Your task to perform on an android device: delete browsing data in the chrome app Image 0: 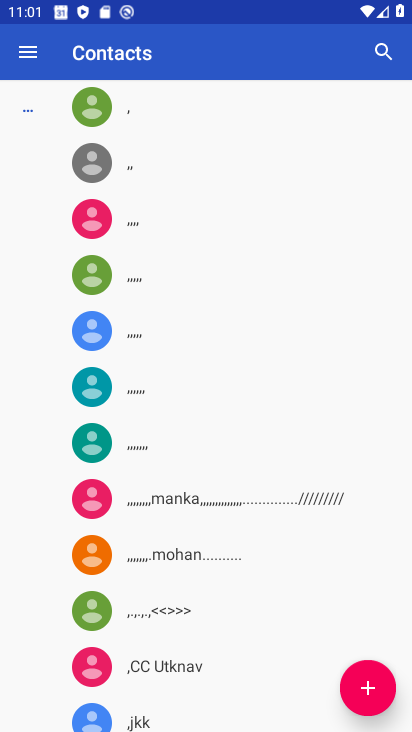
Step 0: press home button
Your task to perform on an android device: delete browsing data in the chrome app Image 1: 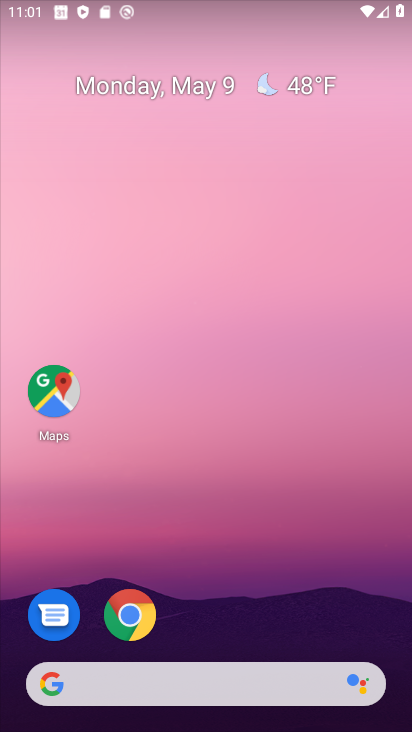
Step 1: click (127, 614)
Your task to perform on an android device: delete browsing data in the chrome app Image 2: 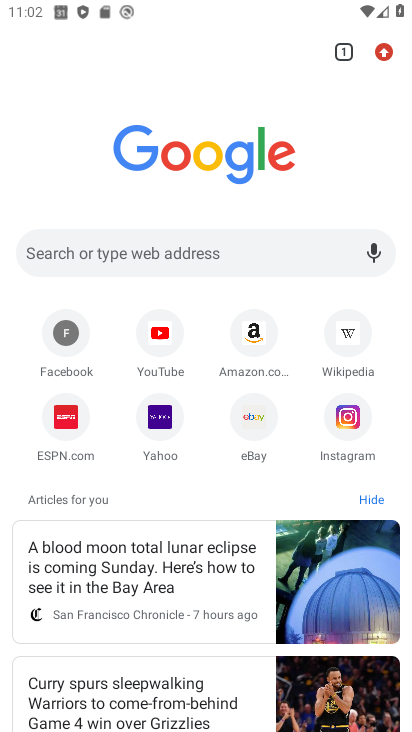
Step 2: click (383, 50)
Your task to perform on an android device: delete browsing data in the chrome app Image 3: 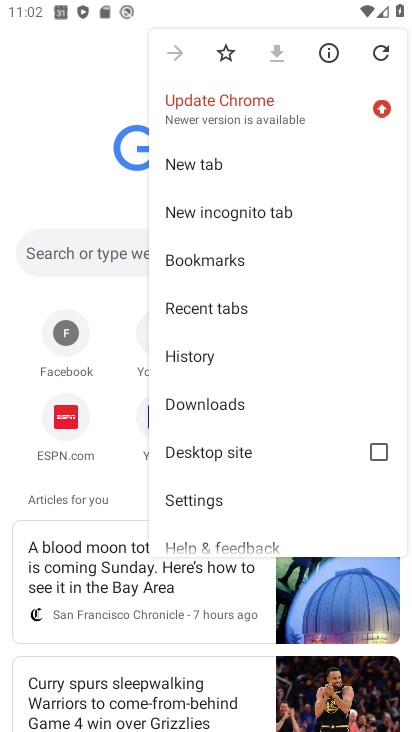
Step 3: click (218, 358)
Your task to perform on an android device: delete browsing data in the chrome app Image 4: 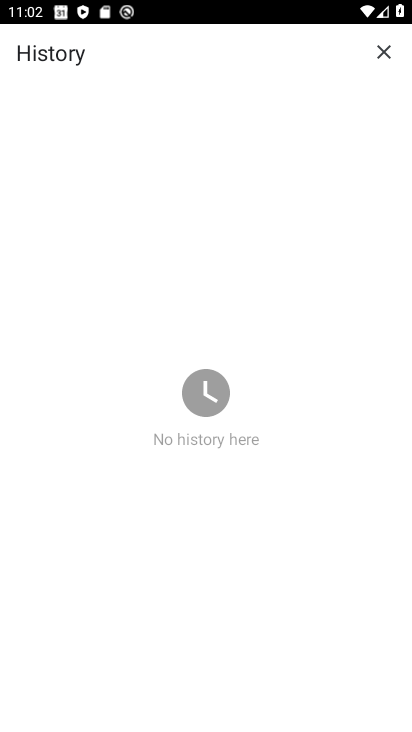
Step 4: task complete